Your task to perform on an android device: Search for the best selling coffee table on Crate & Barrel Image 0: 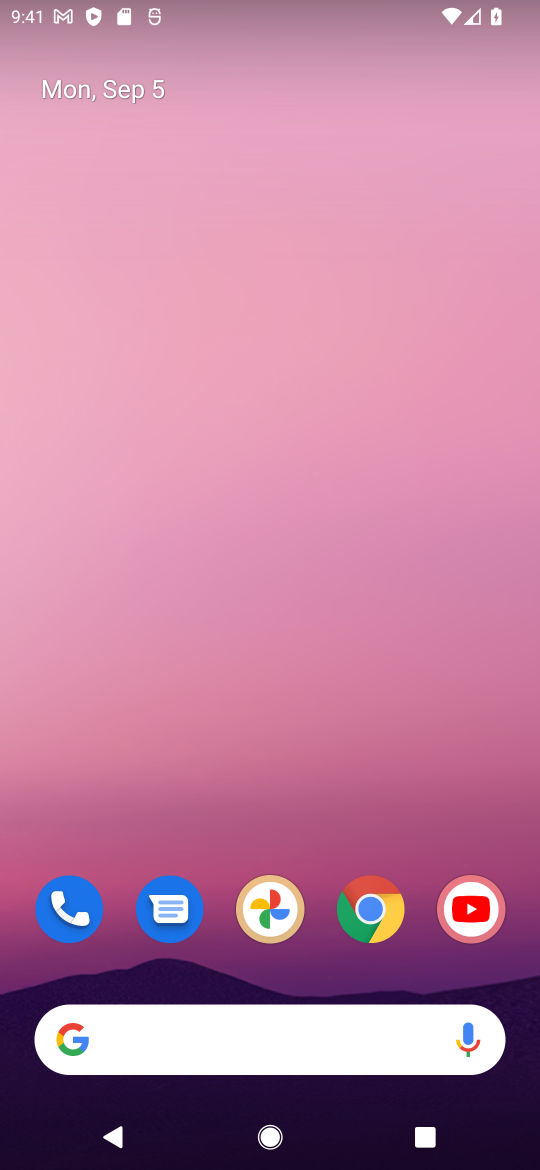
Step 0: click (371, 928)
Your task to perform on an android device: Search for the best selling coffee table on Crate & Barrel Image 1: 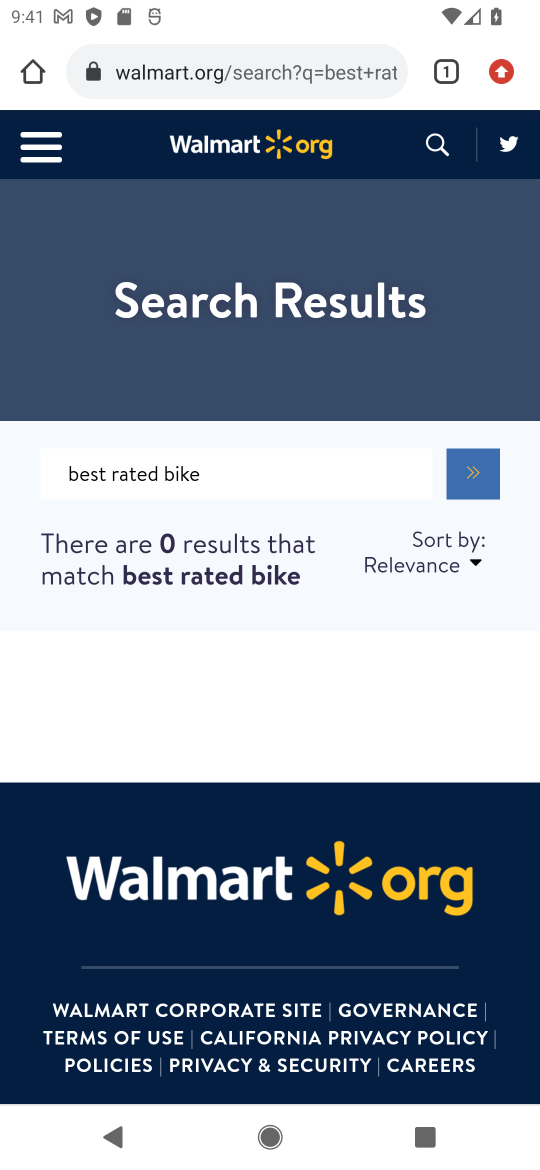
Step 1: click (278, 90)
Your task to perform on an android device: Search for the best selling coffee table on Crate & Barrel Image 2: 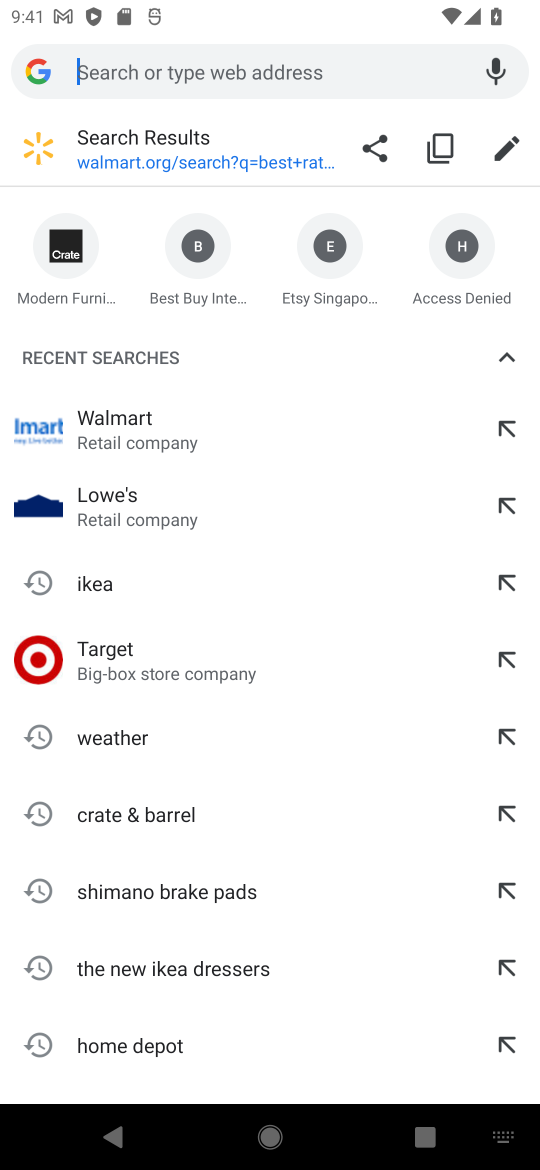
Step 2: type "crateandbarrel"
Your task to perform on an android device: Search for the best selling coffee table on Crate & Barrel Image 3: 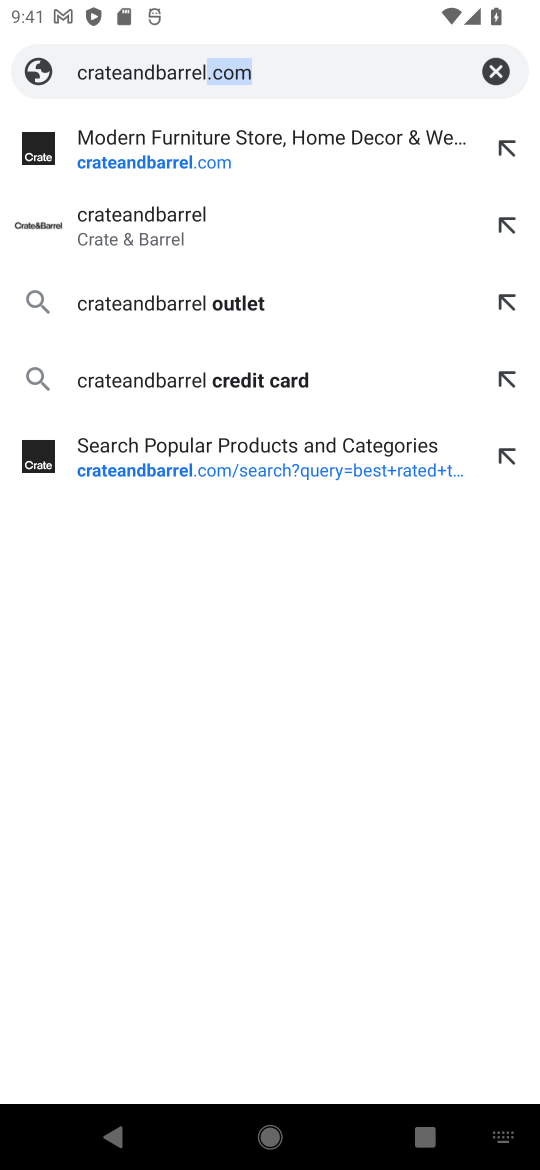
Step 3: click (196, 145)
Your task to perform on an android device: Search for the best selling coffee table on Crate & Barrel Image 4: 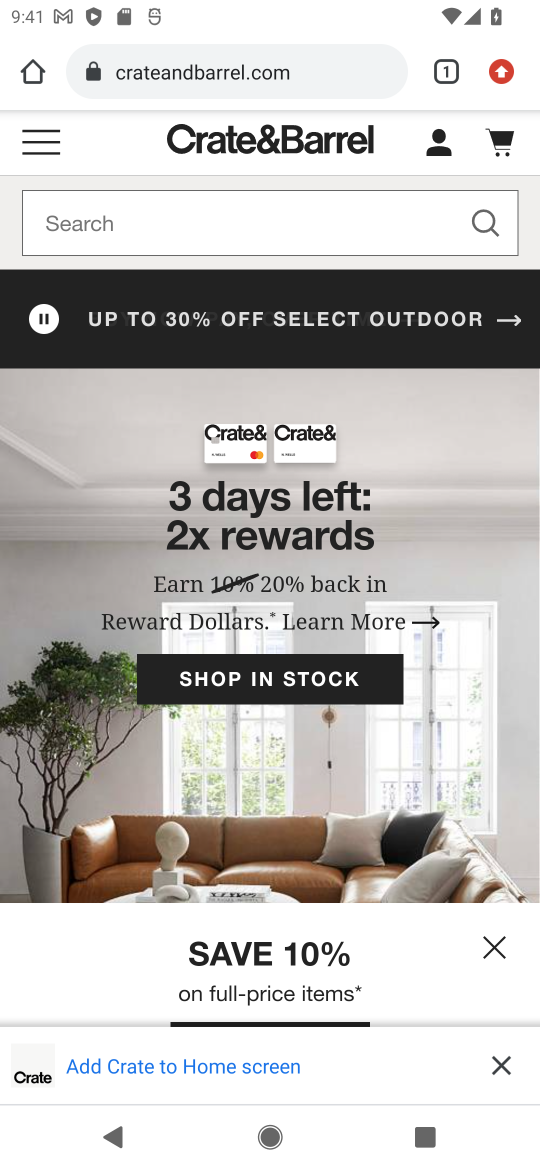
Step 4: click (186, 214)
Your task to perform on an android device: Search for the best selling coffee table on Crate & Barrel Image 5: 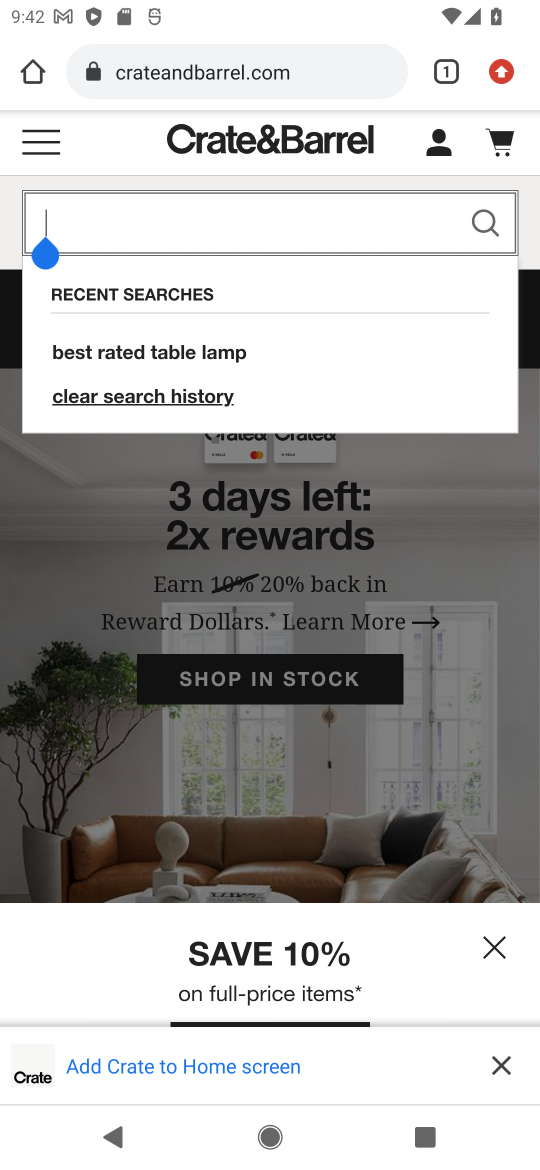
Step 5: type "best selling coffee table"
Your task to perform on an android device: Search for the best selling coffee table on Crate & Barrel Image 6: 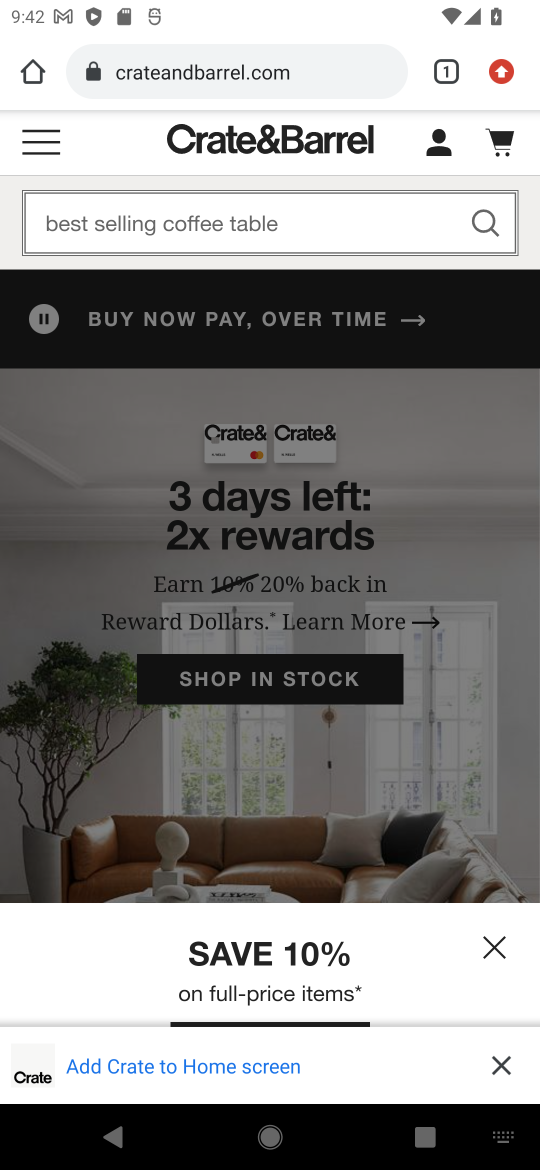
Step 6: click (491, 215)
Your task to perform on an android device: Search for the best selling coffee table on Crate & Barrel Image 7: 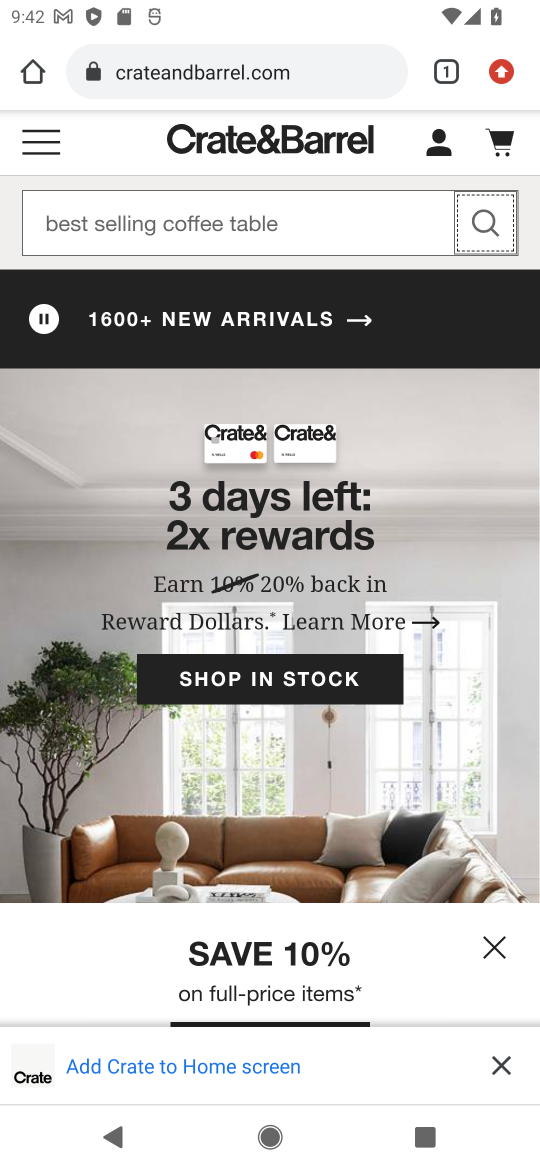
Step 7: click (493, 228)
Your task to perform on an android device: Search for the best selling coffee table on Crate & Barrel Image 8: 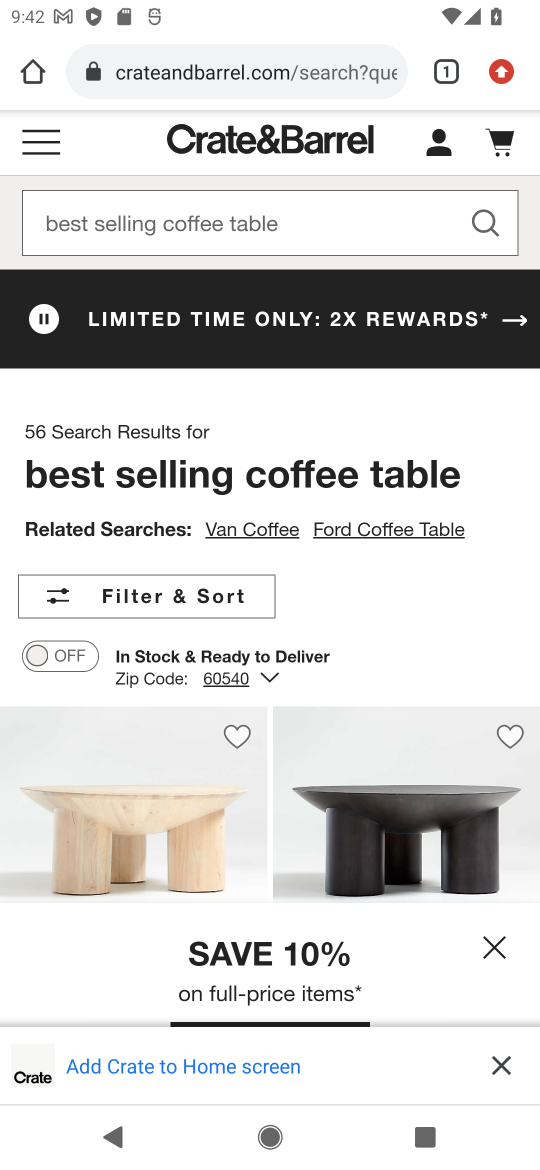
Step 8: task complete